Your task to perform on an android device: turn on showing notifications on the lock screen Image 0: 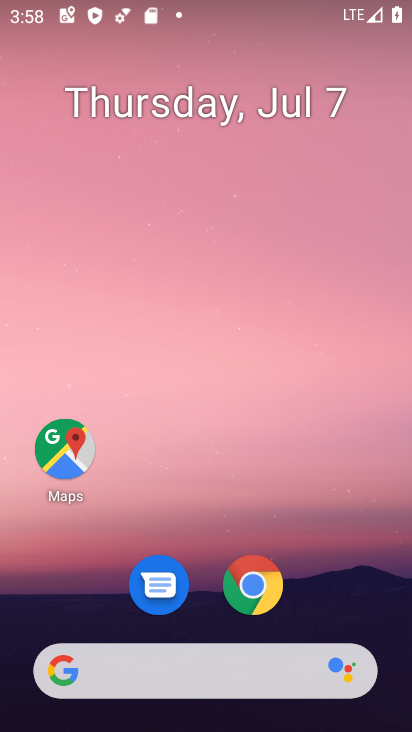
Step 0: drag from (284, 511) to (347, 27)
Your task to perform on an android device: turn on showing notifications on the lock screen Image 1: 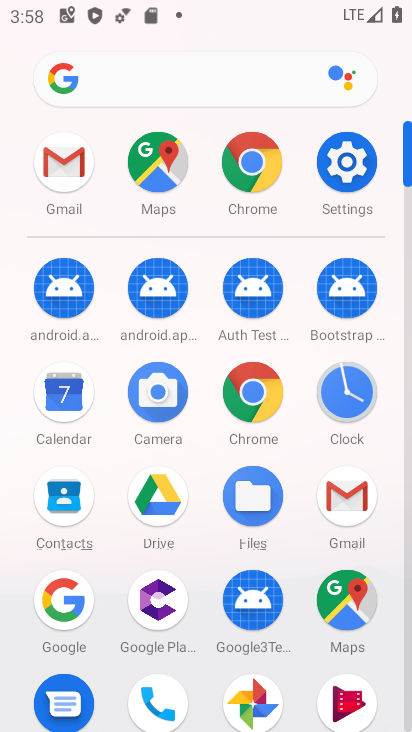
Step 1: click (338, 161)
Your task to perform on an android device: turn on showing notifications on the lock screen Image 2: 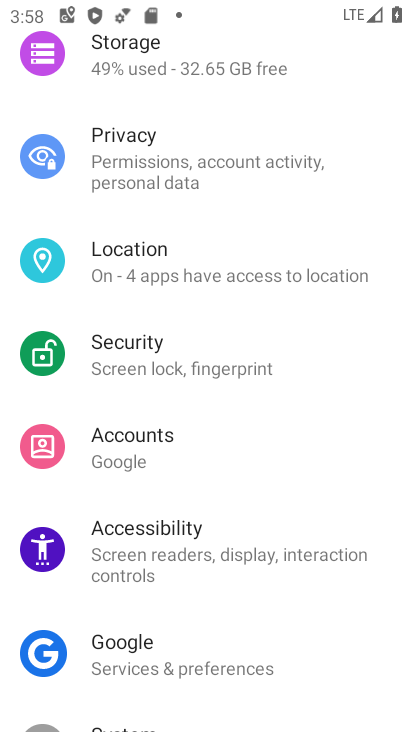
Step 2: drag from (269, 210) to (249, 633)
Your task to perform on an android device: turn on showing notifications on the lock screen Image 3: 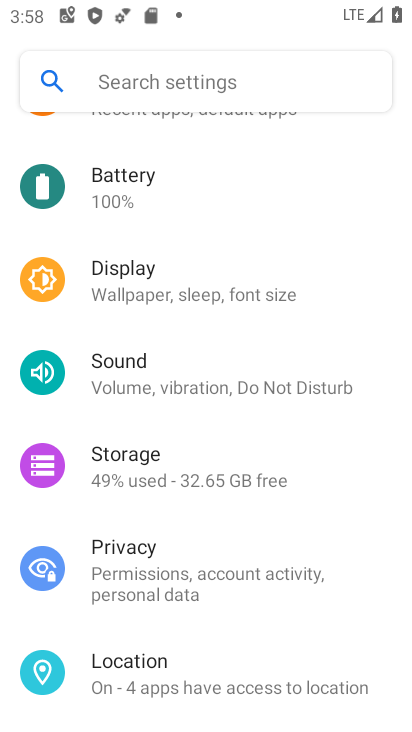
Step 3: drag from (239, 152) to (220, 582)
Your task to perform on an android device: turn on showing notifications on the lock screen Image 4: 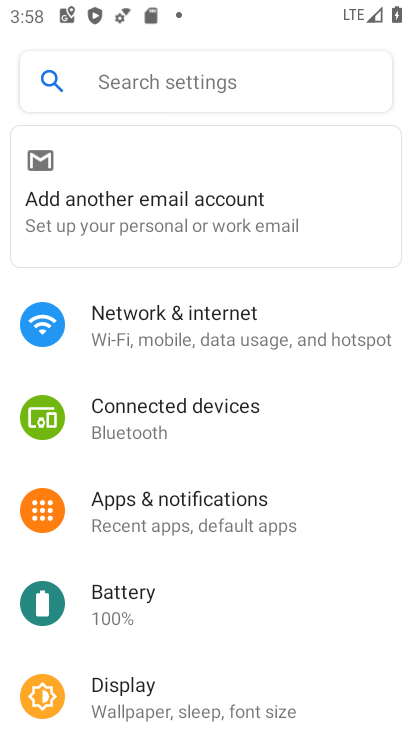
Step 4: click (212, 496)
Your task to perform on an android device: turn on showing notifications on the lock screen Image 5: 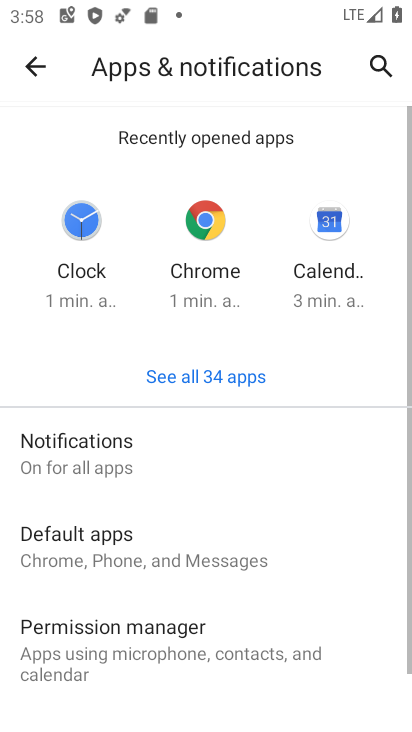
Step 5: click (127, 449)
Your task to perform on an android device: turn on showing notifications on the lock screen Image 6: 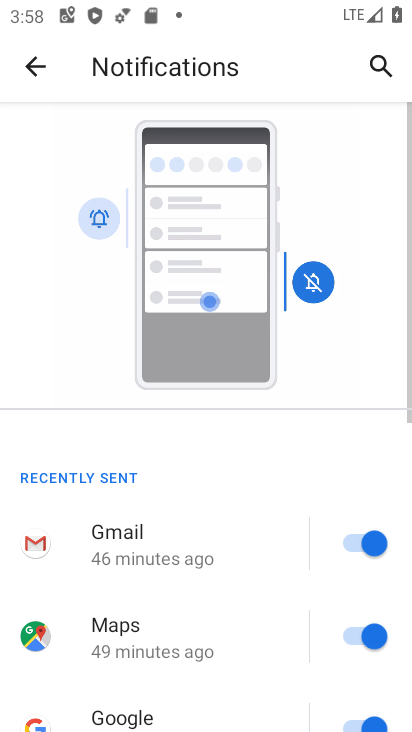
Step 6: drag from (210, 603) to (242, 54)
Your task to perform on an android device: turn on showing notifications on the lock screen Image 7: 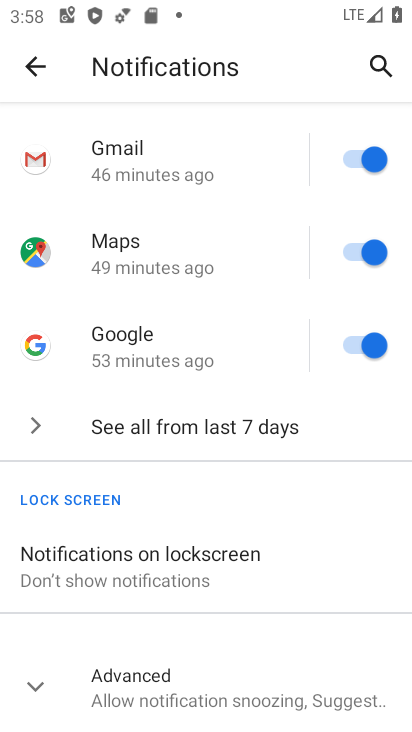
Step 7: click (172, 582)
Your task to perform on an android device: turn on showing notifications on the lock screen Image 8: 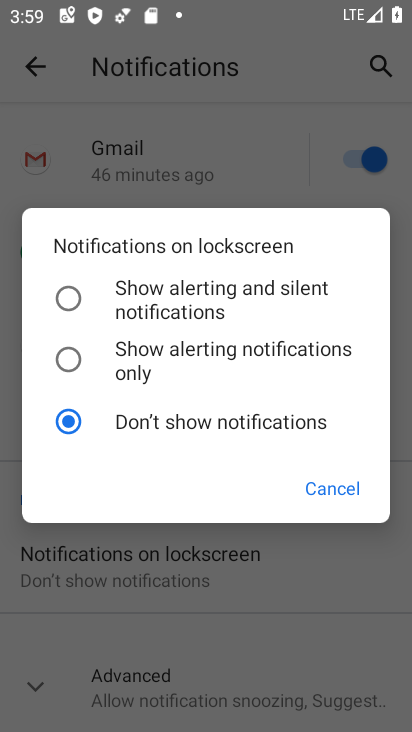
Step 8: click (75, 282)
Your task to perform on an android device: turn on showing notifications on the lock screen Image 9: 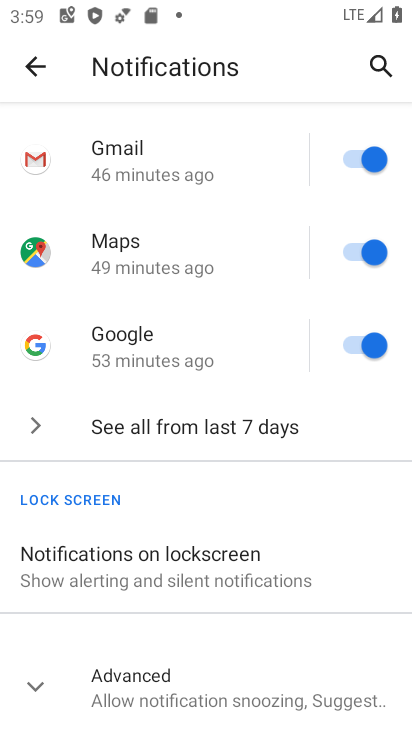
Step 9: task complete